Your task to perform on an android device: set default search engine in the chrome app Image 0: 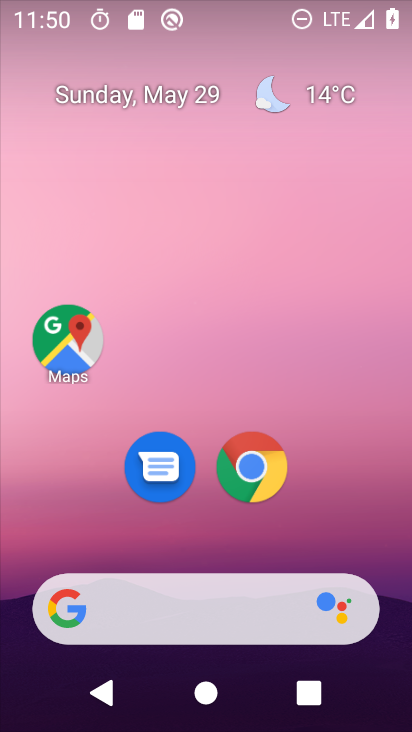
Step 0: click (261, 476)
Your task to perform on an android device: set default search engine in the chrome app Image 1: 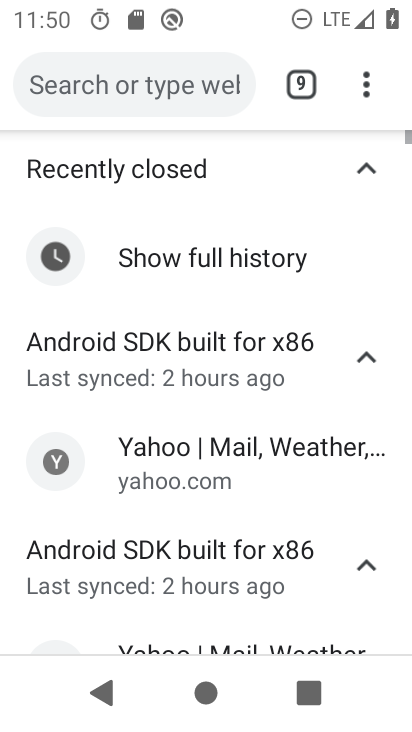
Step 1: click (357, 85)
Your task to perform on an android device: set default search engine in the chrome app Image 2: 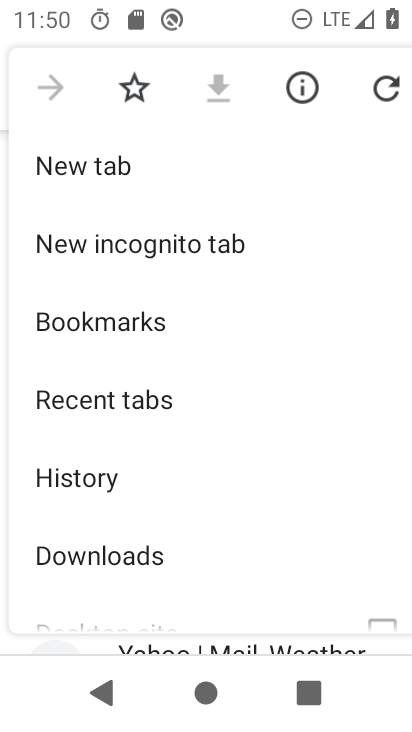
Step 2: drag from (211, 458) to (211, 217)
Your task to perform on an android device: set default search engine in the chrome app Image 3: 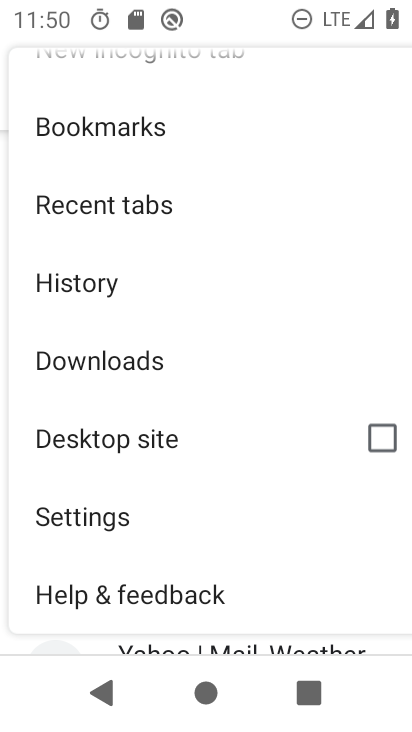
Step 3: drag from (179, 488) to (212, 254)
Your task to perform on an android device: set default search engine in the chrome app Image 4: 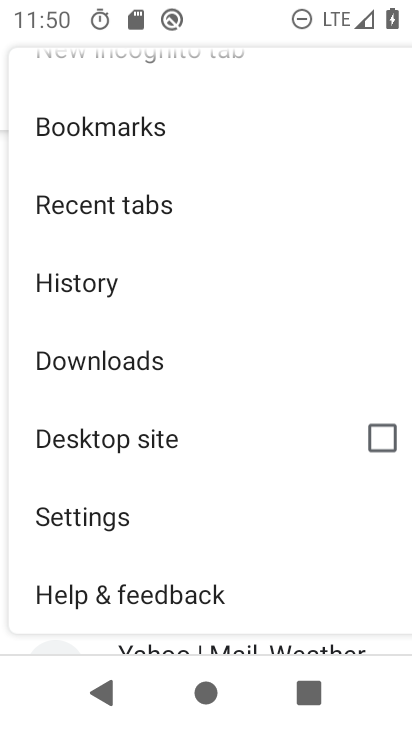
Step 4: click (130, 515)
Your task to perform on an android device: set default search engine in the chrome app Image 5: 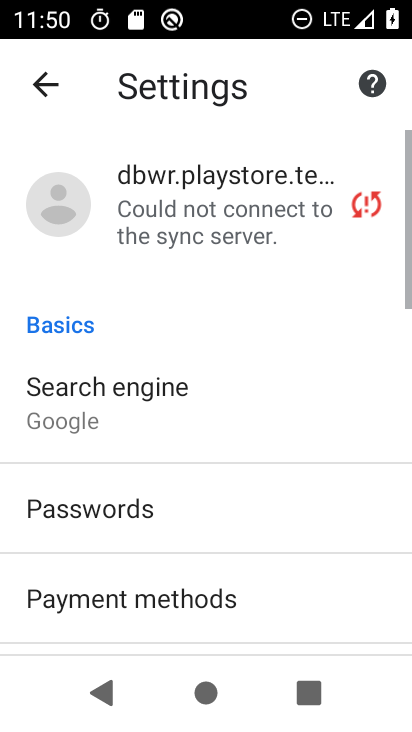
Step 5: drag from (164, 581) to (180, 254)
Your task to perform on an android device: set default search engine in the chrome app Image 6: 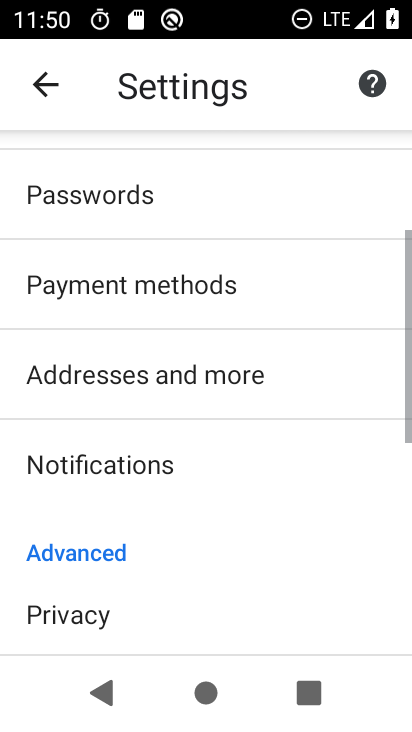
Step 6: drag from (165, 506) to (173, 221)
Your task to perform on an android device: set default search engine in the chrome app Image 7: 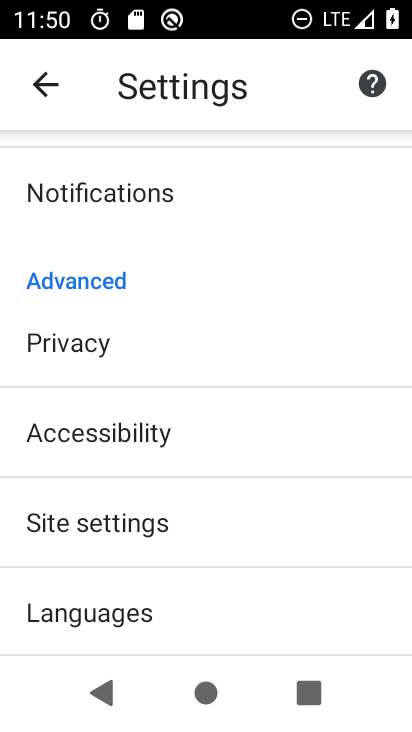
Step 7: drag from (164, 516) to (173, 280)
Your task to perform on an android device: set default search engine in the chrome app Image 8: 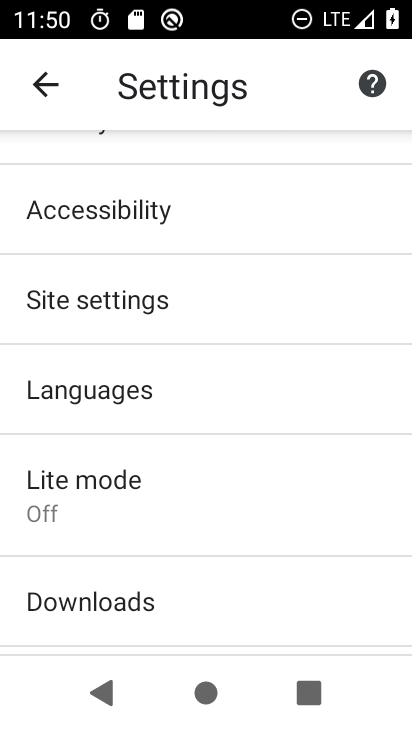
Step 8: drag from (180, 527) to (178, 443)
Your task to perform on an android device: set default search engine in the chrome app Image 9: 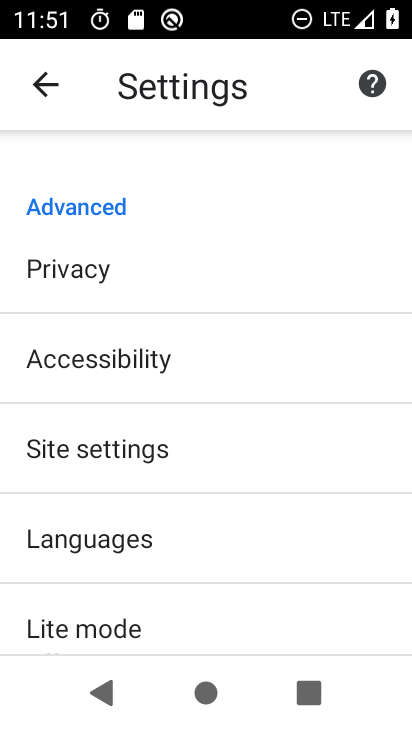
Step 9: drag from (159, 540) to (165, 577)
Your task to perform on an android device: set default search engine in the chrome app Image 10: 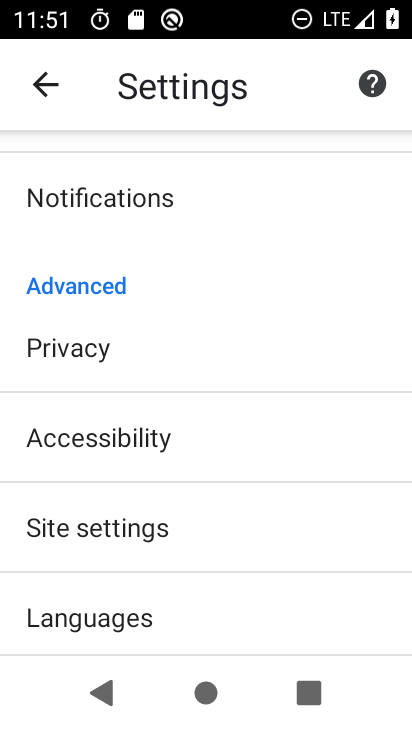
Step 10: press back button
Your task to perform on an android device: set default search engine in the chrome app Image 11: 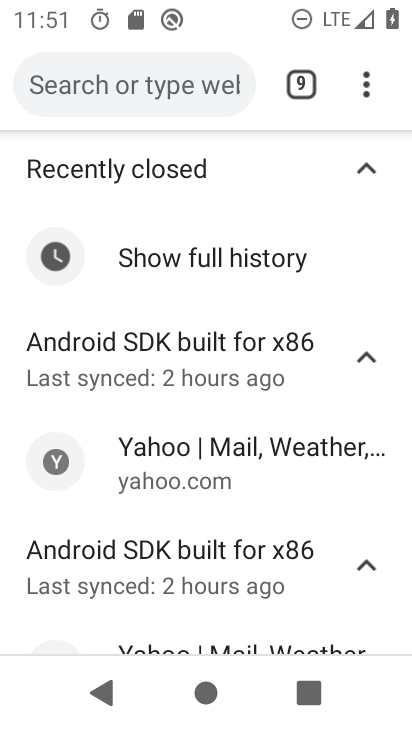
Step 11: press back button
Your task to perform on an android device: set default search engine in the chrome app Image 12: 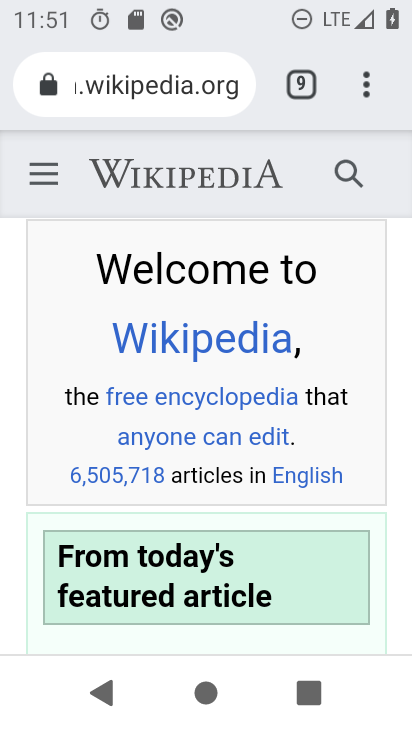
Step 12: click (364, 85)
Your task to perform on an android device: set default search engine in the chrome app Image 13: 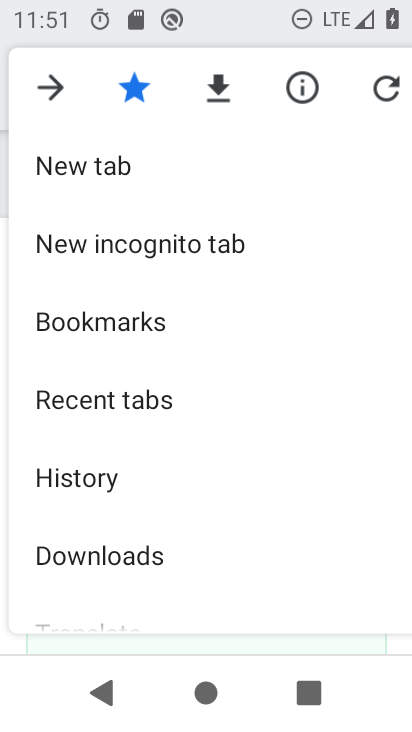
Step 13: drag from (113, 236) to (119, 515)
Your task to perform on an android device: set default search engine in the chrome app Image 14: 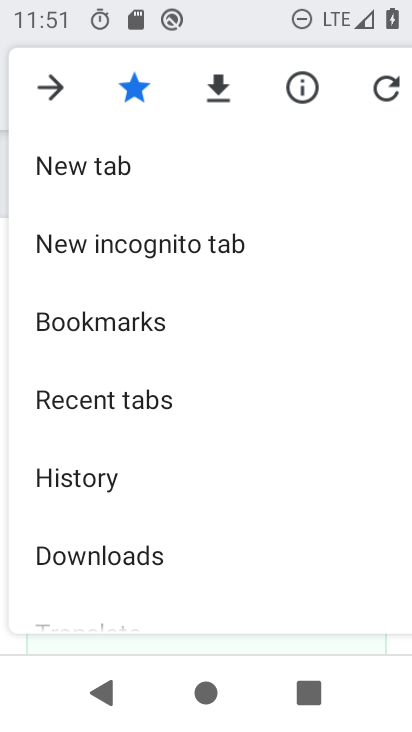
Step 14: drag from (129, 489) to (153, 463)
Your task to perform on an android device: set default search engine in the chrome app Image 15: 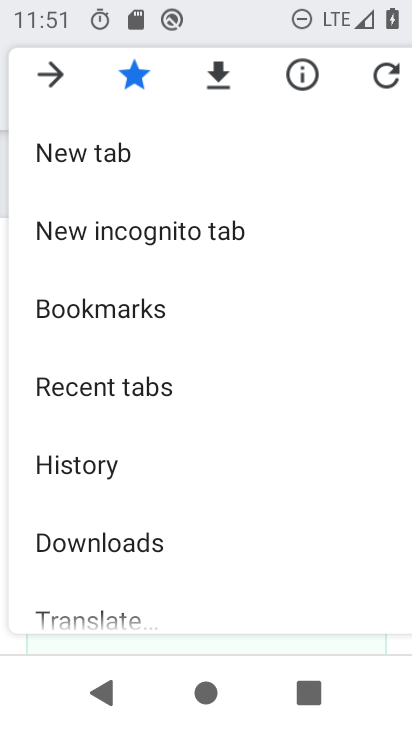
Step 15: drag from (151, 481) to (185, 194)
Your task to perform on an android device: set default search engine in the chrome app Image 16: 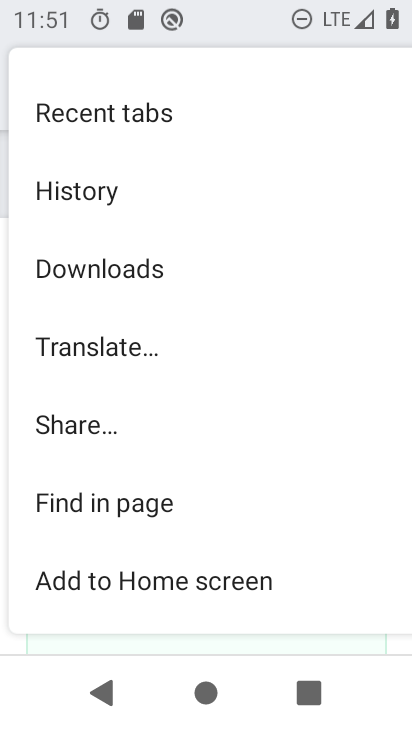
Step 16: click (136, 527)
Your task to perform on an android device: set default search engine in the chrome app Image 17: 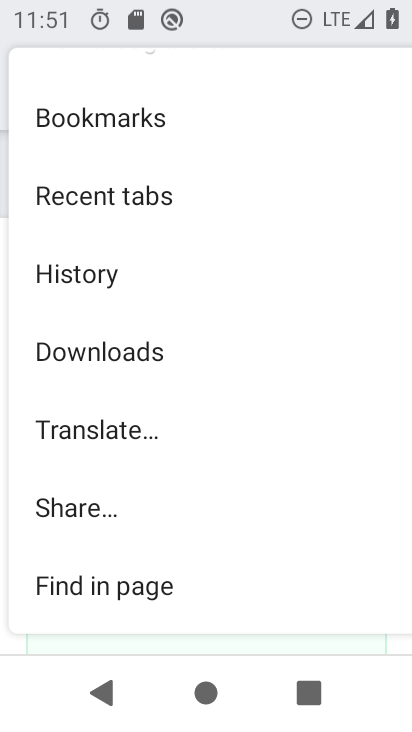
Step 17: drag from (184, 128) to (233, 173)
Your task to perform on an android device: set default search engine in the chrome app Image 18: 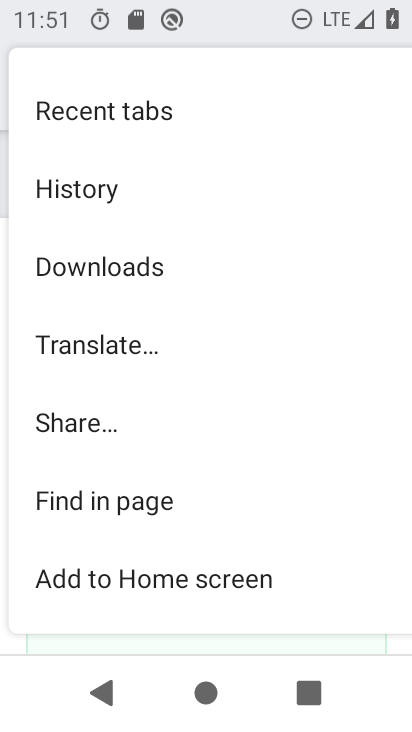
Step 18: drag from (173, 525) to (203, 243)
Your task to perform on an android device: set default search engine in the chrome app Image 19: 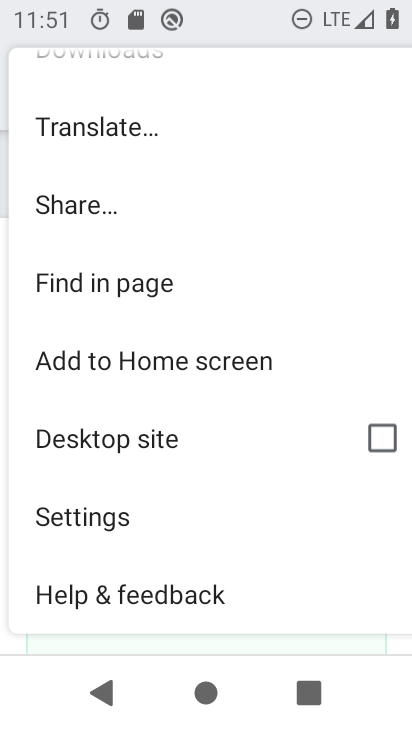
Step 19: click (123, 521)
Your task to perform on an android device: set default search engine in the chrome app Image 20: 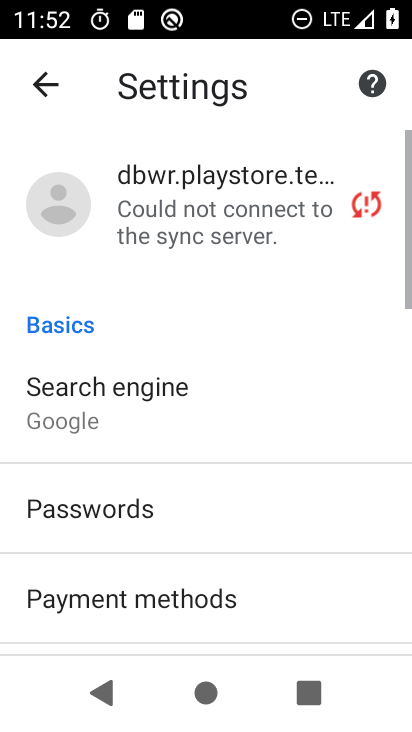
Step 20: click (139, 390)
Your task to perform on an android device: set default search engine in the chrome app Image 21: 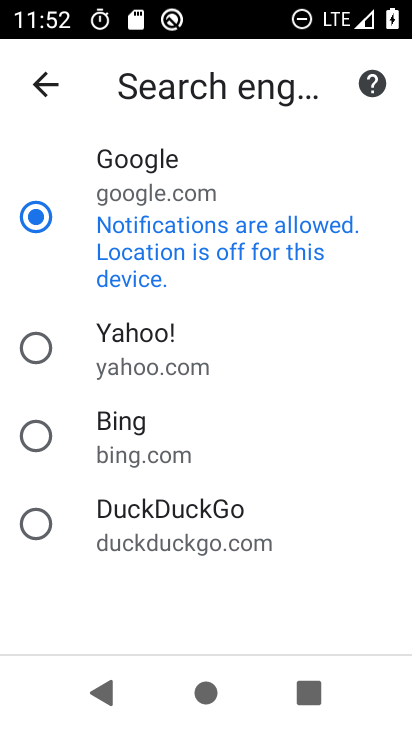
Step 21: click (38, 346)
Your task to perform on an android device: set default search engine in the chrome app Image 22: 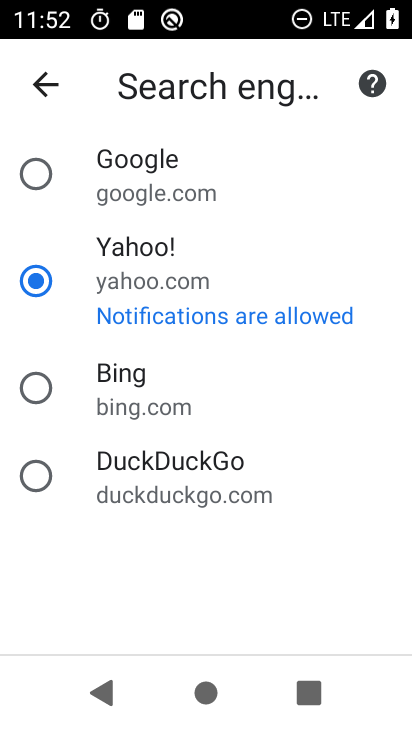
Step 22: task complete